Your task to perform on an android device: open chrome and create a bookmark for the current page Image 0: 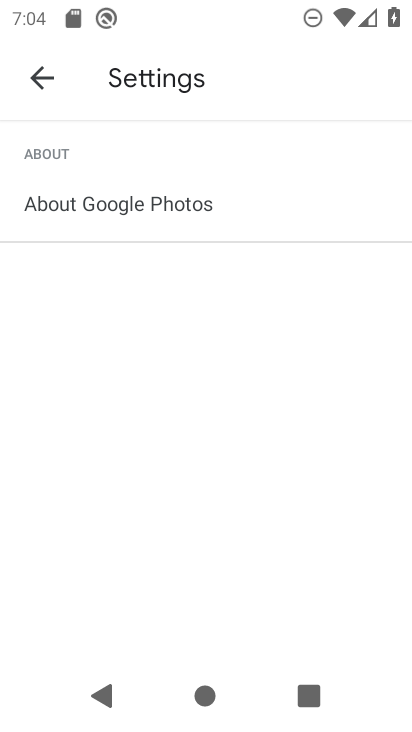
Step 0: press home button
Your task to perform on an android device: open chrome and create a bookmark for the current page Image 1: 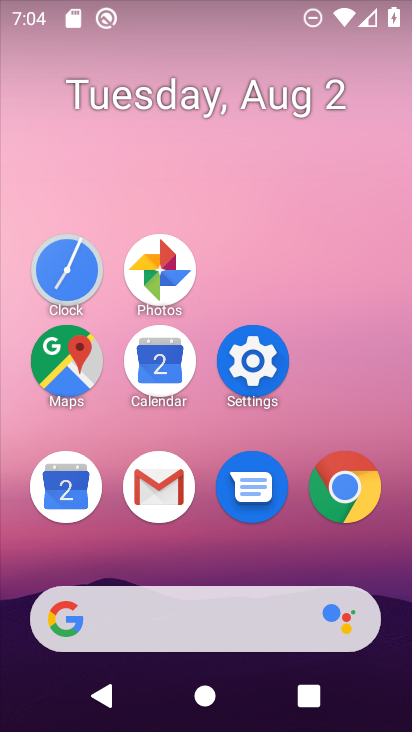
Step 1: click (343, 484)
Your task to perform on an android device: open chrome and create a bookmark for the current page Image 2: 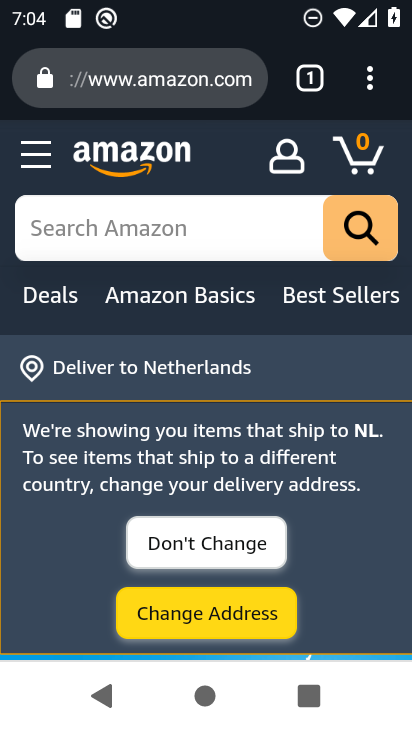
Step 2: click (368, 82)
Your task to perform on an android device: open chrome and create a bookmark for the current page Image 3: 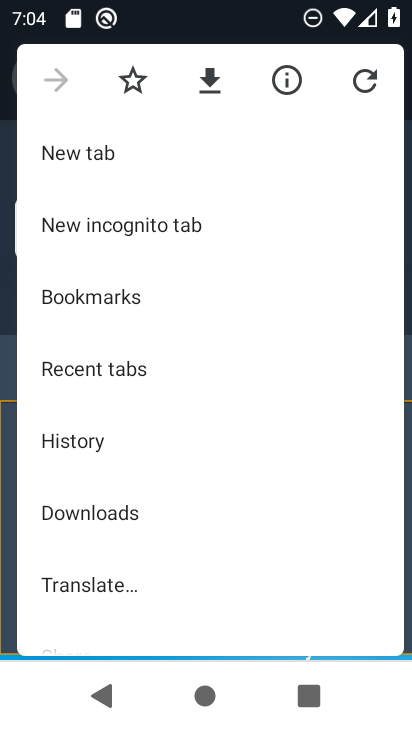
Step 3: click (135, 81)
Your task to perform on an android device: open chrome and create a bookmark for the current page Image 4: 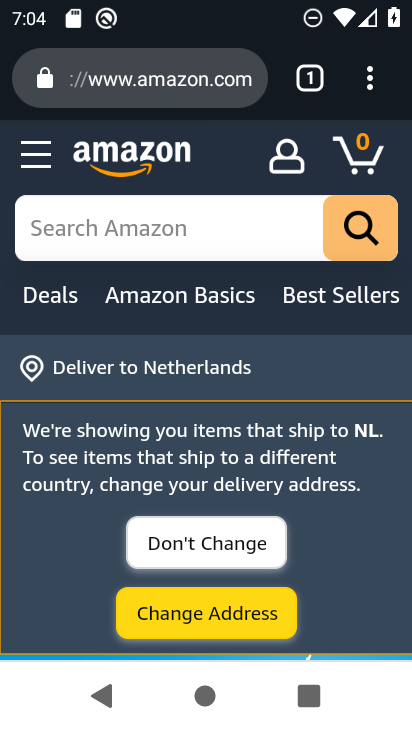
Step 4: click (369, 82)
Your task to perform on an android device: open chrome and create a bookmark for the current page Image 5: 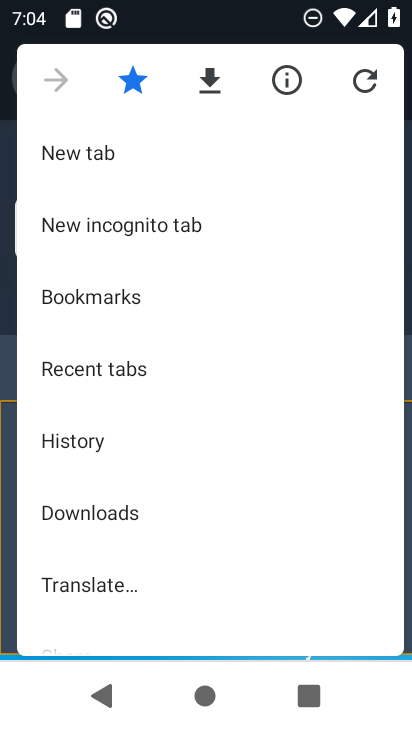
Step 5: task complete